Your task to perform on an android device: set default search engine in the chrome app Image 0: 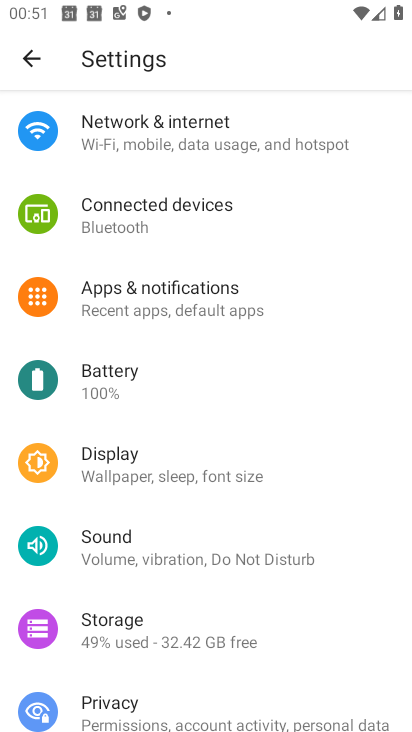
Step 0: press home button
Your task to perform on an android device: set default search engine in the chrome app Image 1: 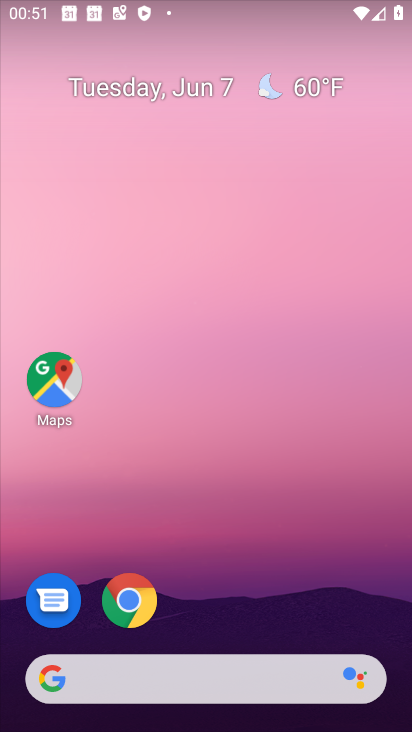
Step 1: click (124, 605)
Your task to perform on an android device: set default search engine in the chrome app Image 2: 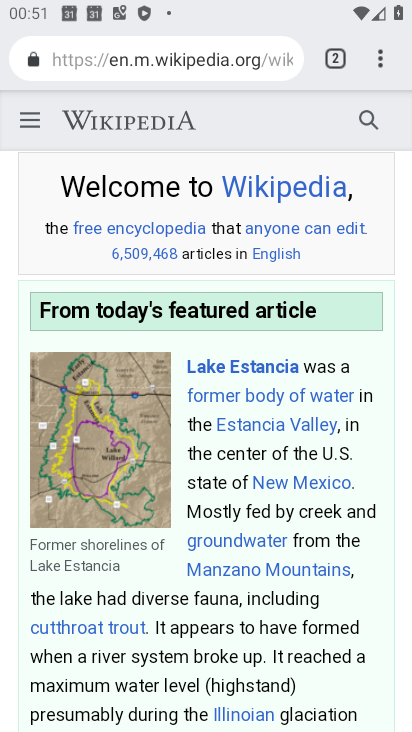
Step 2: click (380, 67)
Your task to perform on an android device: set default search engine in the chrome app Image 3: 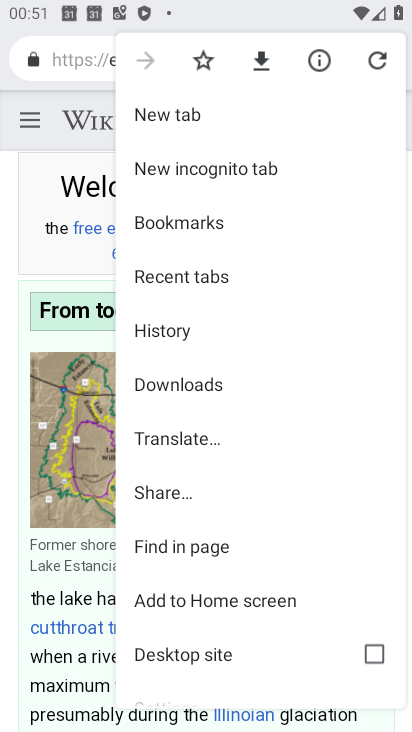
Step 3: drag from (216, 653) to (219, 287)
Your task to perform on an android device: set default search engine in the chrome app Image 4: 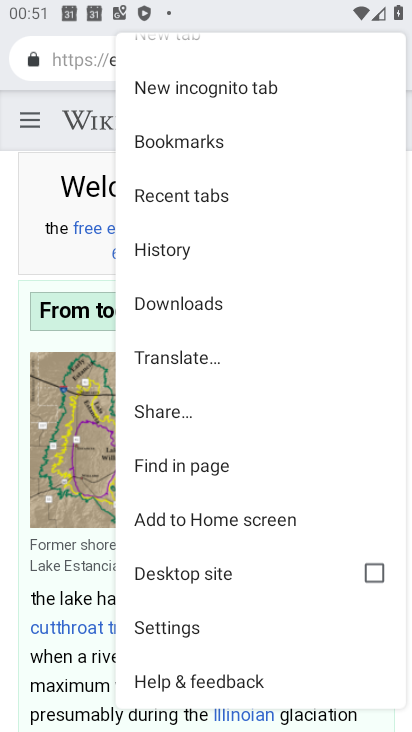
Step 4: click (175, 629)
Your task to perform on an android device: set default search engine in the chrome app Image 5: 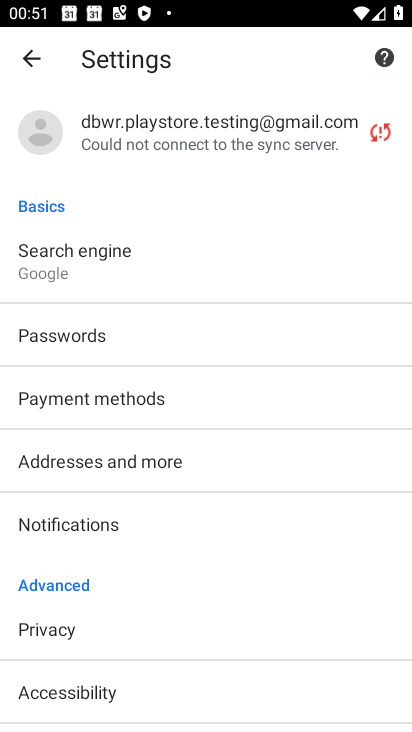
Step 5: drag from (148, 687) to (148, 320)
Your task to perform on an android device: set default search engine in the chrome app Image 6: 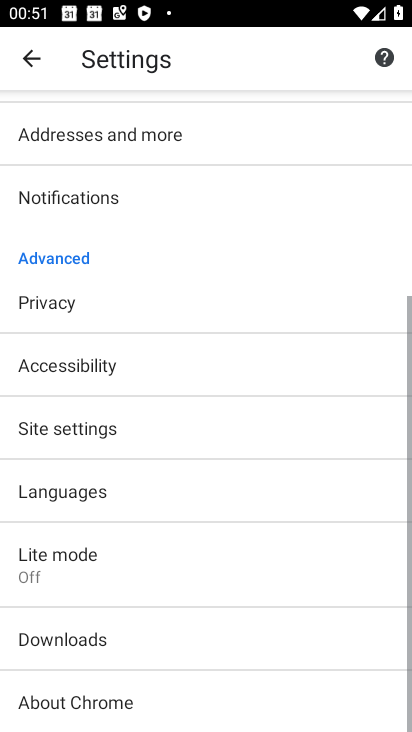
Step 6: drag from (90, 664) to (87, 331)
Your task to perform on an android device: set default search engine in the chrome app Image 7: 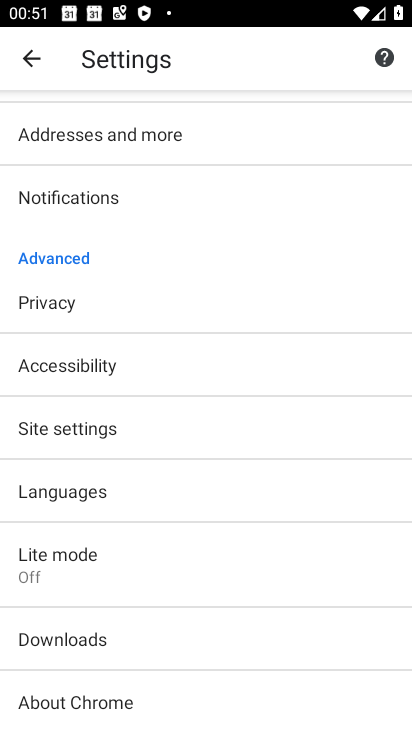
Step 7: drag from (227, 213) to (212, 575)
Your task to perform on an android device: set default search engine in the chrome app Image 8: 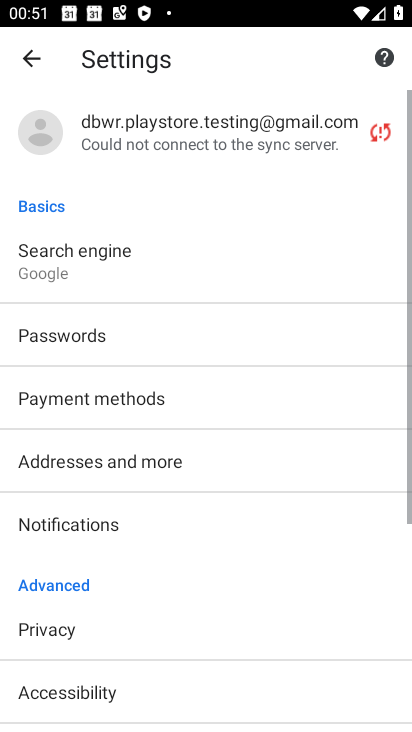
Step 8: drag from (221, 159) to (238, 597)
Your task to perform on an android device: set default search engine in the chrome app Image 9: 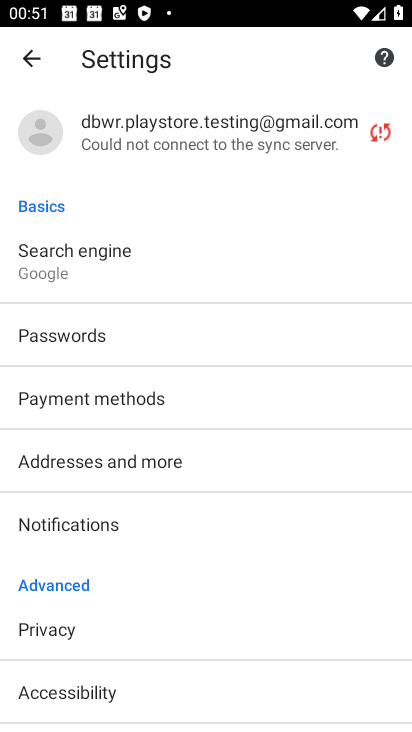
Step 9: click (71, 257)
Your task to perform on an android device: set default search engine in the chrome app Image 10: 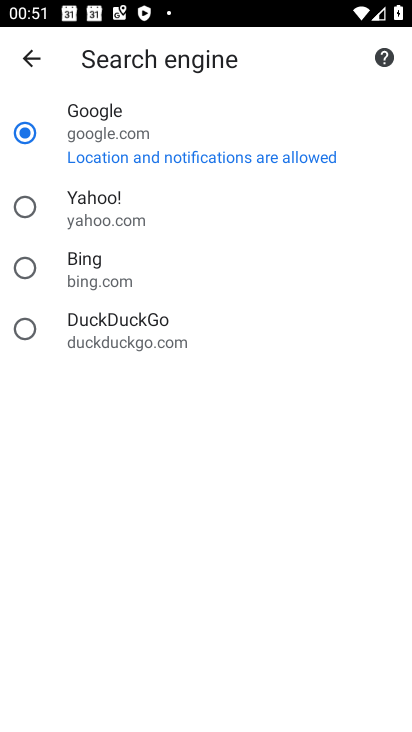
Step 10: click (35, 200)
Your task to perform on an android device: set default search engine in the chrome app Image 11: 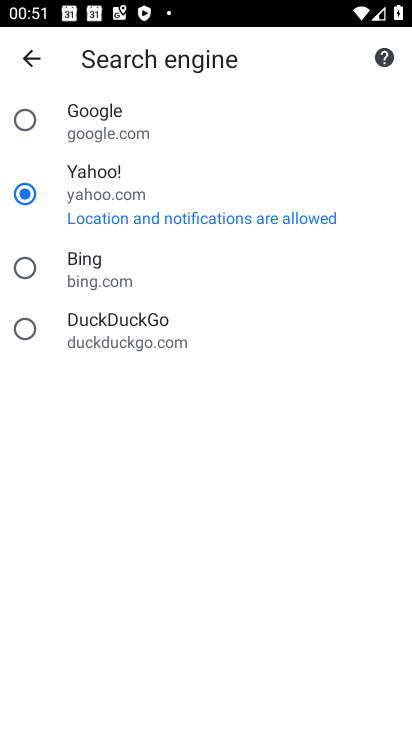
Step 11: task complete